Your task to perform on an android device: Go to Android settings Image 0: 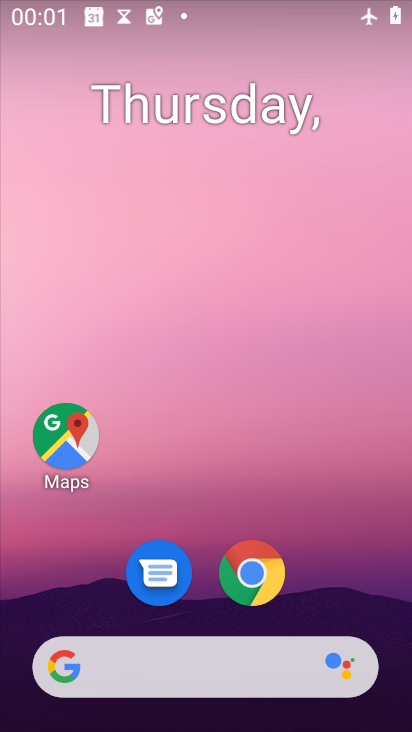
Step 0: drag from (335, 387) to (312, 230)
Your task to perform on an android device: Go to Android settings Image 1: 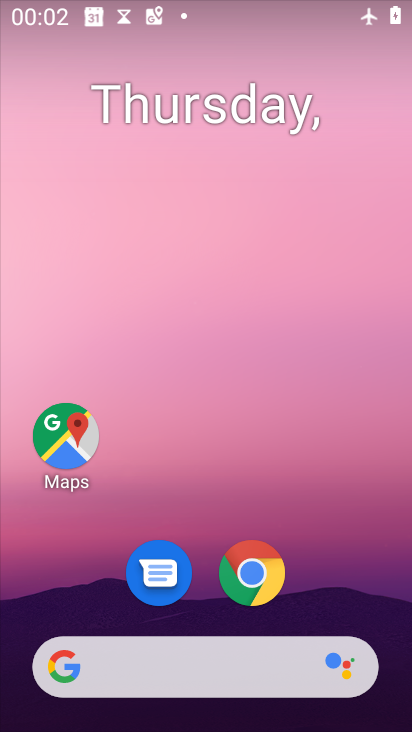
Step 1: drag from (336, 538) to (330, 139)
Your task to perform on an android device: Go to Android settings Image 2: 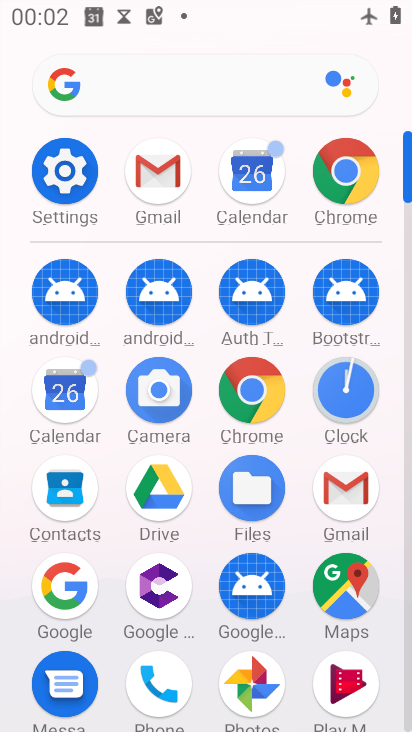
Step 2: click (62, 167)
Your task to perform on an android device: Go to Android settings Image 3: 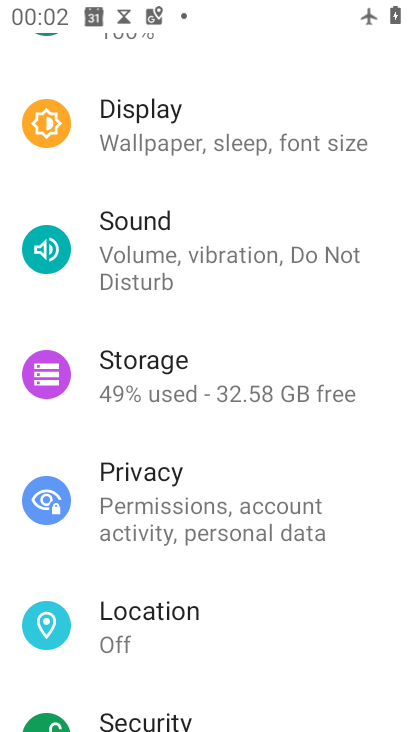
Step 3: drag from (267, 597) to (274, 115)
Your task to perform on an android device: Go to Android settings Image 4: 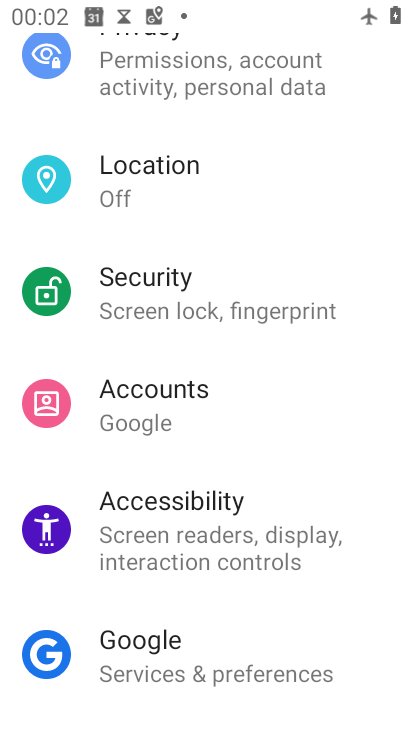
Step 4: drag from (205, 549) to (226, 148)
Your task to perform on an android device: Go to Android settings Image 5: 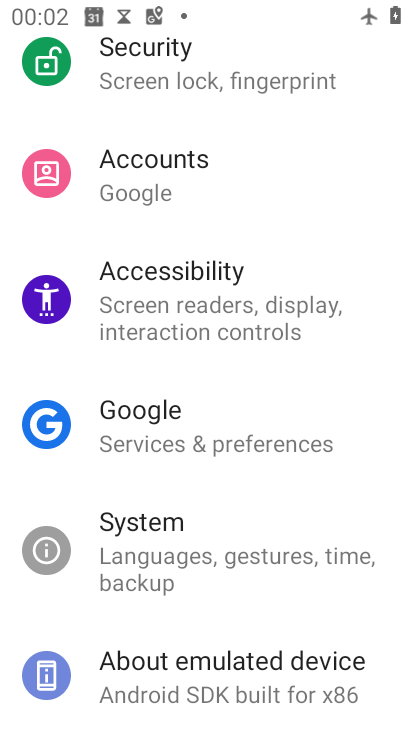
Step 5: drag from (186, 624) to (210, 140)
Your task to perform on an android device: Go to Android settings Image 6: 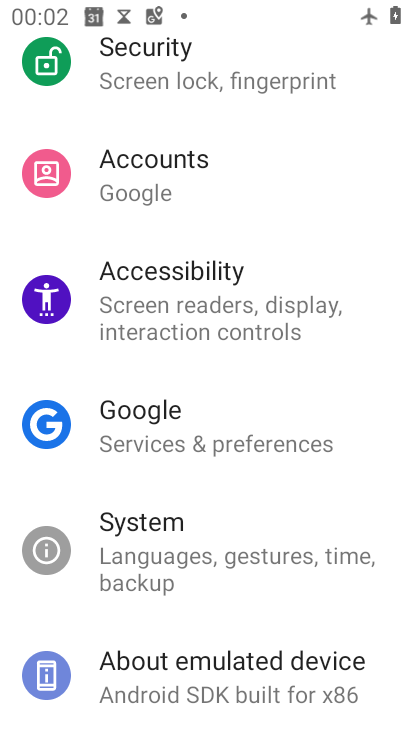
Step 6: click (213, 648)
Your task to perform on an android device: Go to Android settings Image 7: 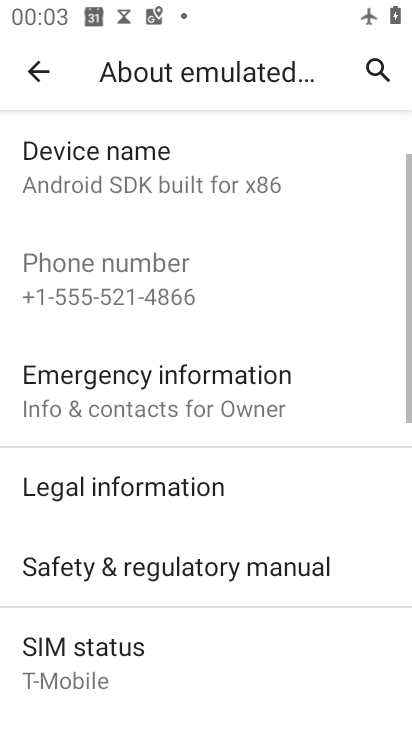
Step 7: task complete